Your task to perform on an android device: empty trash in google photos Image 0: 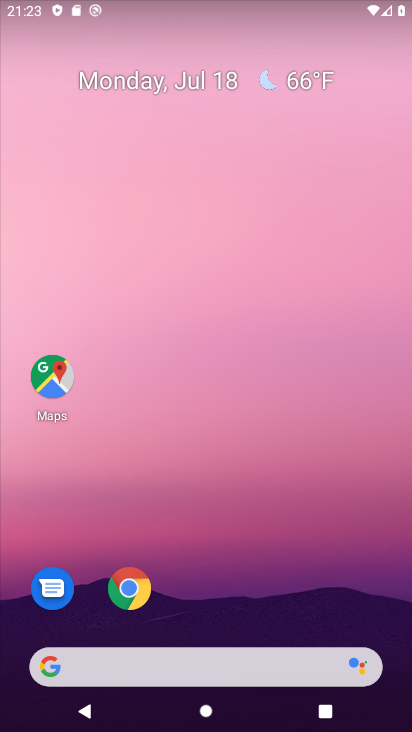
Step 0: drag from (191, 670) to (386, 49)
Your task to perform on an android device: empty trash in google photos Image 1: 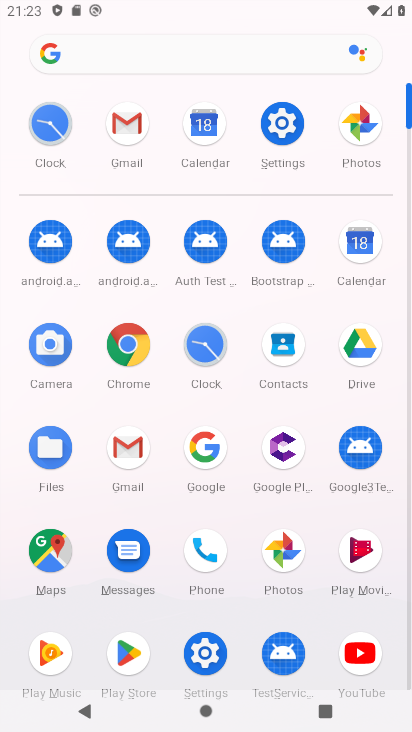
Step 1: click (280, 549)
Your task to perform on an android device: empty trash in google photos Image 2: 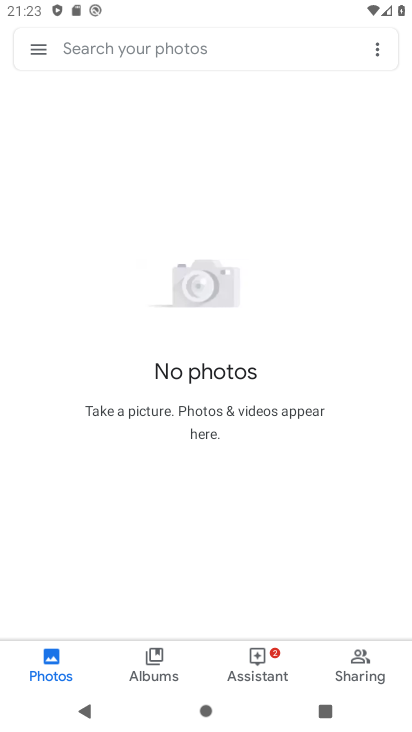
Step 2: click (44, 49)
Your task to perform on an android device: empty trash in google photos Image 3: 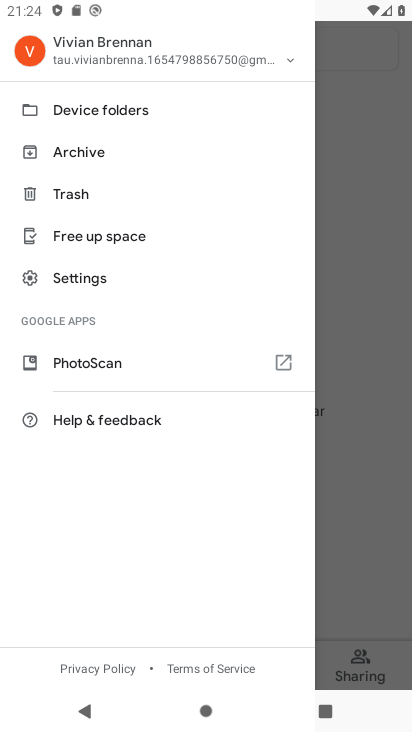
Step 3: click (74, 195)
Your task to perform on an android device: empty trash in google photos Image 4: 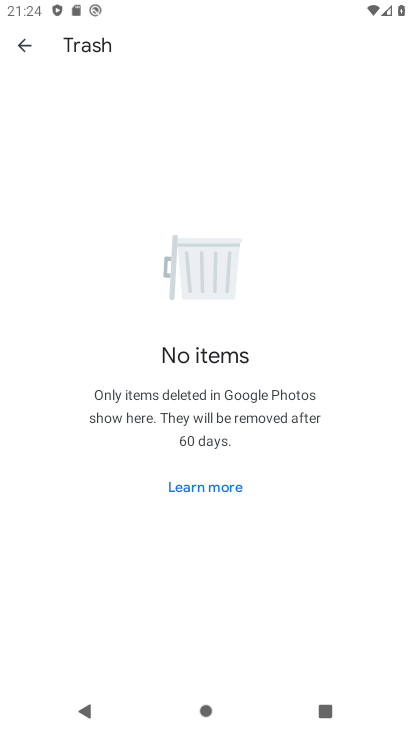
Step 4: task complete